Your task to perform on an android device: Open my contact list Image 0: 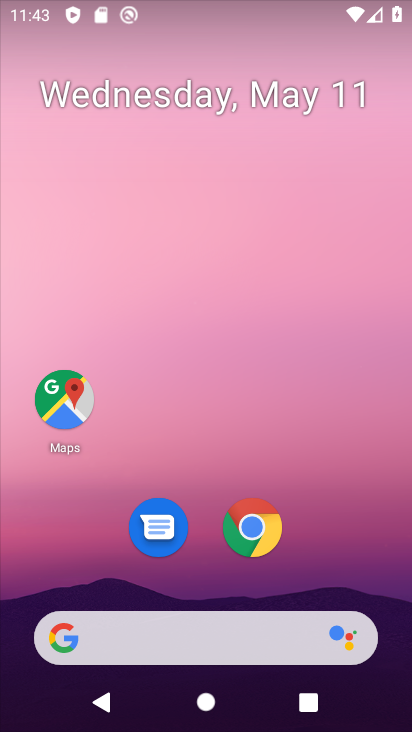
Step 0: drag from (210, 605) to (141, 8)
Your task to perform on an android device: Open my contact list Image 1: 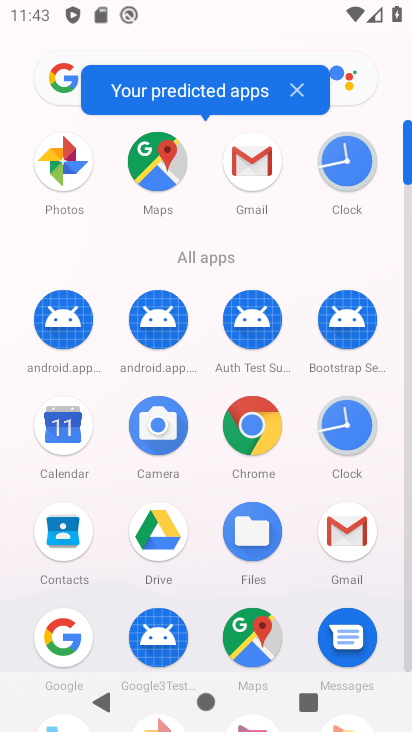
Step 1: drag from (213, 574) to (180, 172)
Your task to perform on an android device: Open my contact list Image 2: 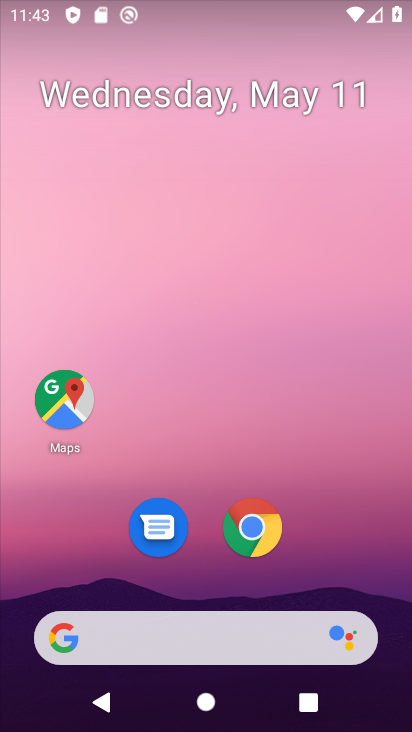
Step 2: drag from (193, 573) to (253, 29)
Your task to perform on an android device: Open my contact list Image 3: 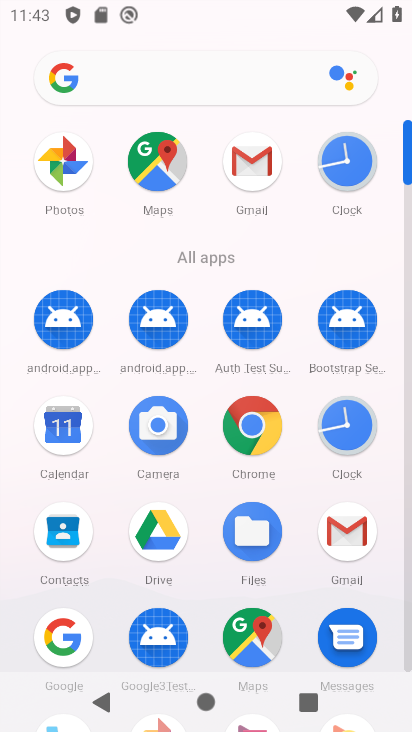
Step 3: drag from (203, 488) to (120, 12)
Your task to perform on an android device: Open my contact list Image 4: 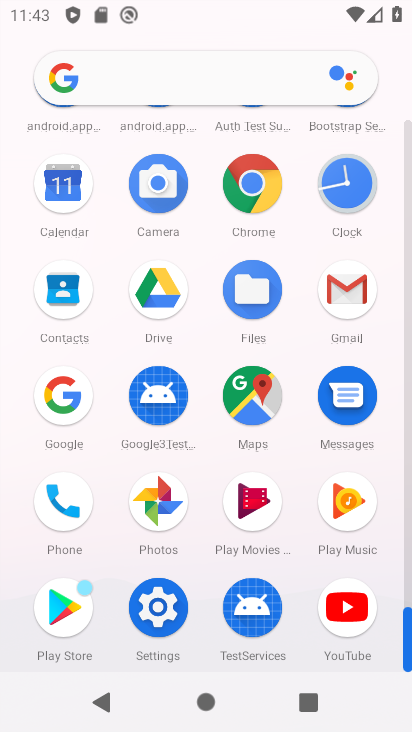
Step 4: click (55, 506)
Your task to perform on an android device: Open my contact list Image 5: 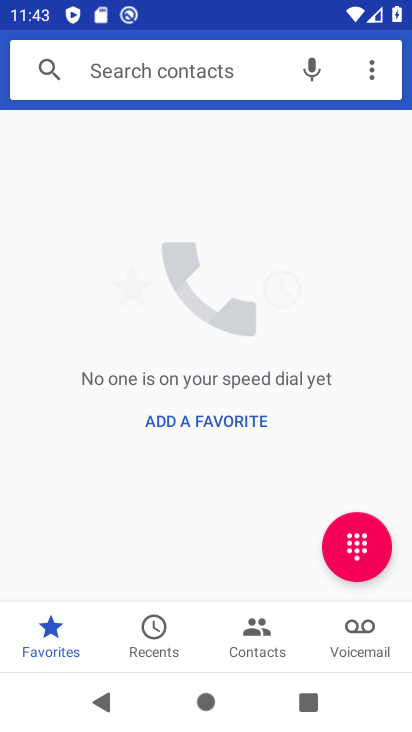
Step 5: click (275, 637)
Your task to perform on an android device: Open my contact list Image 6: 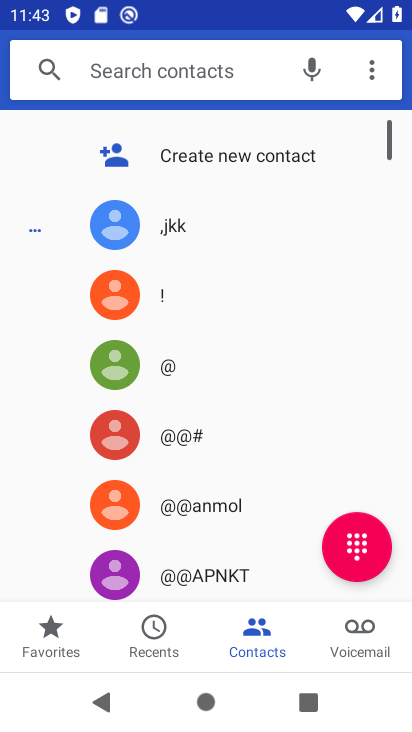
Step 6: task complete